Your task to perform on an android device: Open the Play Movies app and select the watchlist tab. Image 0: 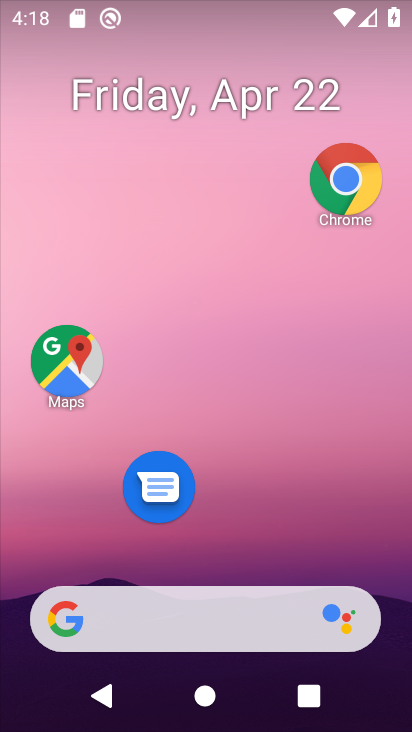
Step 0: drag from (292, 501) to (290, 176)
Your task to perform on an android device: Open the Play Movies app and select the watchlist tab. Image 1: 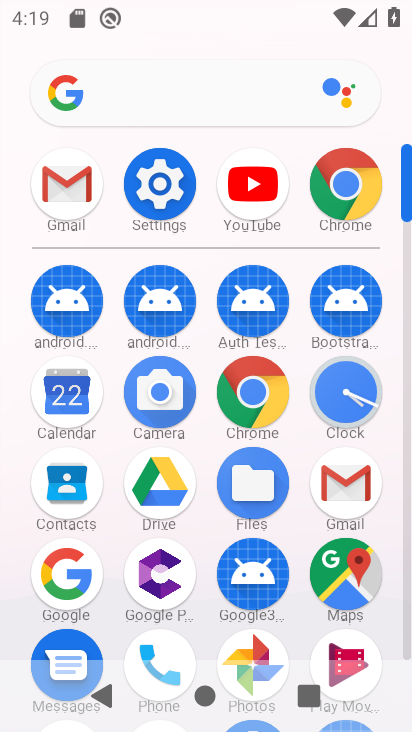
Step 1: click (351, 636)
Your task to perform on an android device: Open the Play Movies app and select the watchlist tab. Image 2: 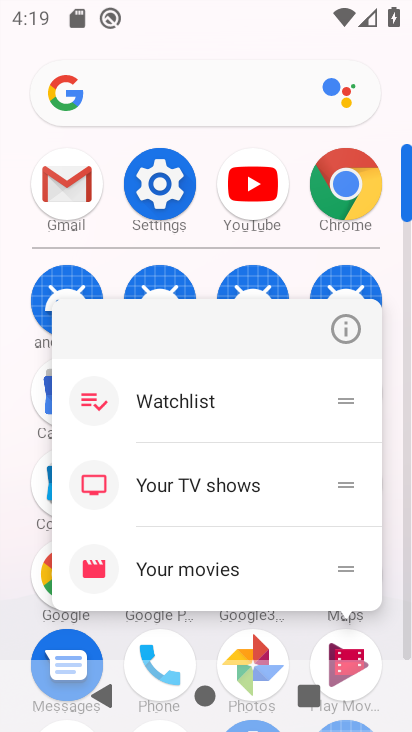
Step 2: click (347, 632)
Your task to perform on an android device: Open the Play Movies app and select the watchlist tab. Image 3: 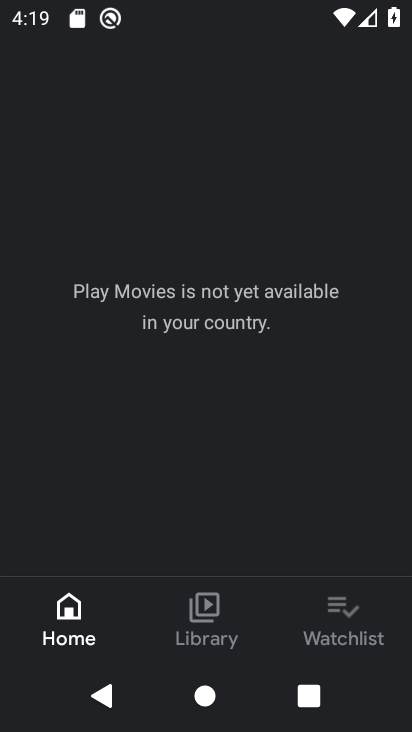
Step 3: click (341, 610)
Your task to perform on an android device: Open the Play Movies app and select the watchlist tab. Image 4: 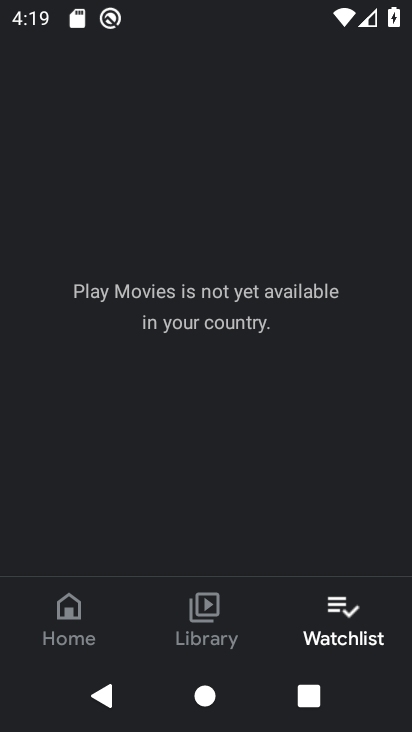
Step 4: task complete